Your task to perform on an android device: Open the Play Movies app and select the watchlist tab. Image 0: 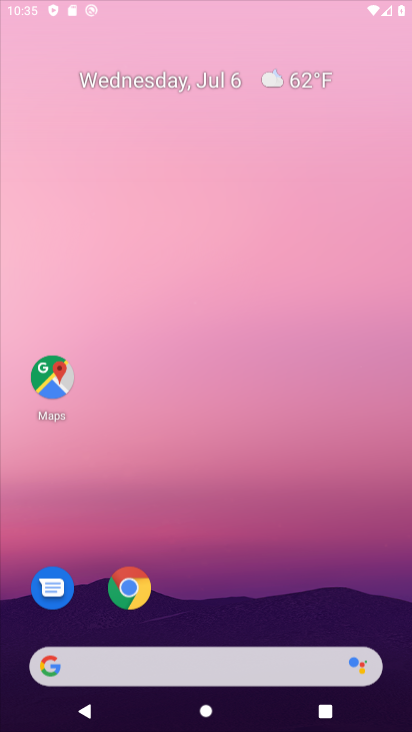
Step 0: press home button
Your task to perform on an android device: Open the Play Movies app and select the watchlist tab. Image 1: 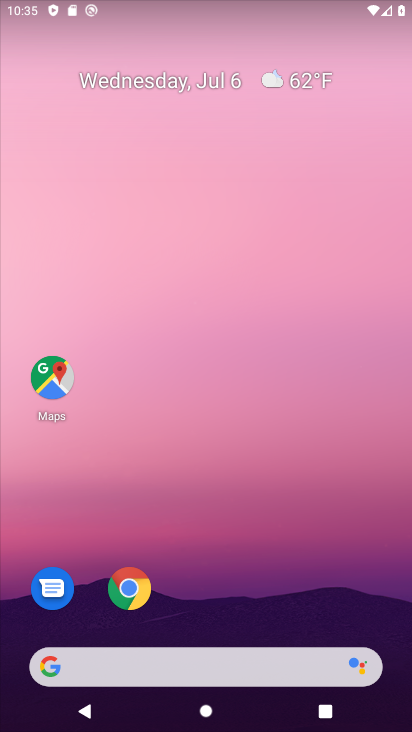
Step 1: drag from (379, 608) to (349, 139)
Your task to perform on an android device: Open the Play Movies app and select the watchlist tab. Image 2: 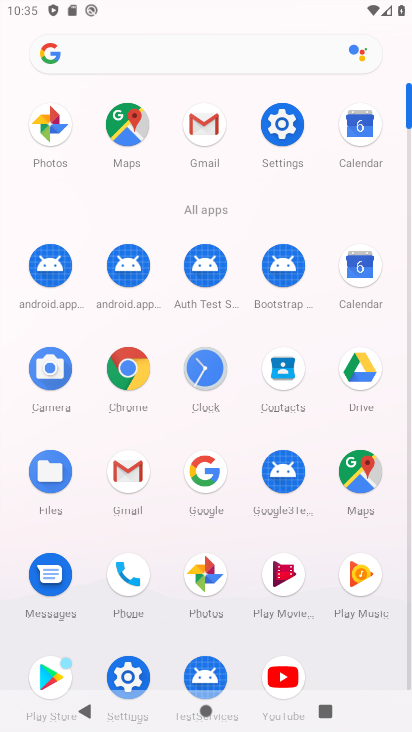
Step 2: click (287, 576)
Your task to perform on an android device: Open the Play Movies app and select the watchlist tab. Image 3: 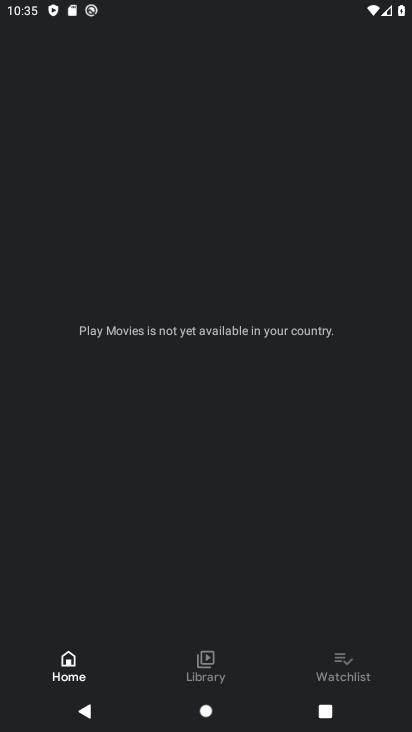
Step 3: click (340, 657)
Your task to perform on an android device: Open the Play Movies app and select the watchlist tab. Image 4: 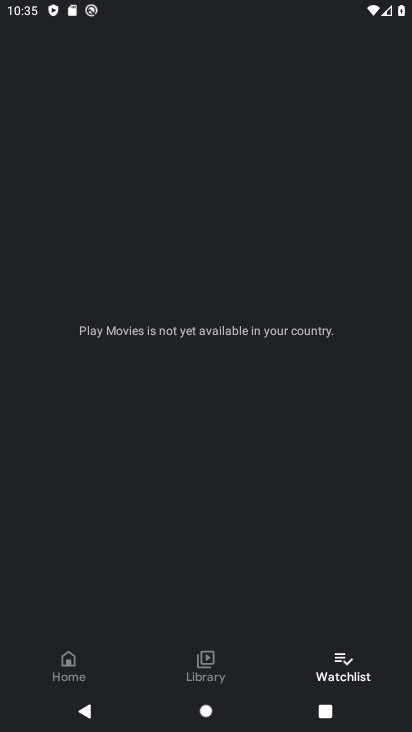
Step 4: task complete